Your task to perform on an android device: open wifi settings Image 0: 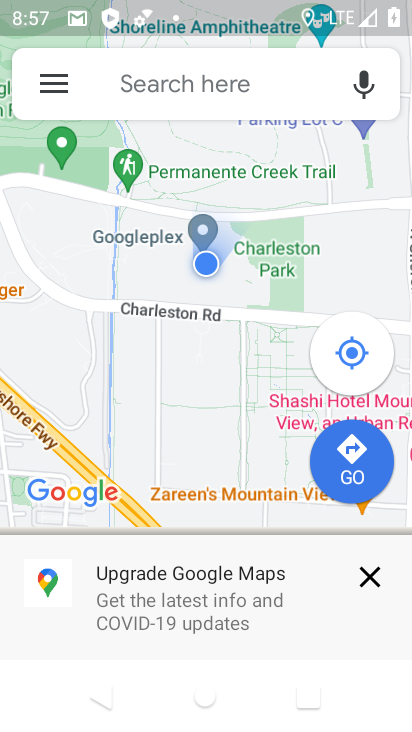
Step 0: press back button
Your task to perform on an android device: open wifi settings Image 1: 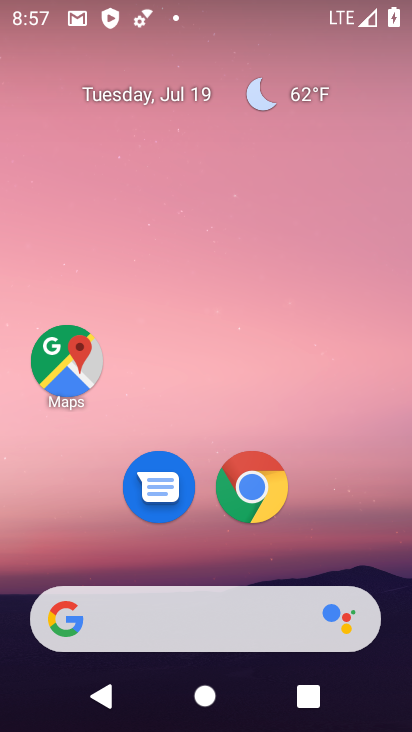
Step 1: drag from (41, 22) to (167, 642)
Your task to perform on an android device: open wifi settings Image 2: 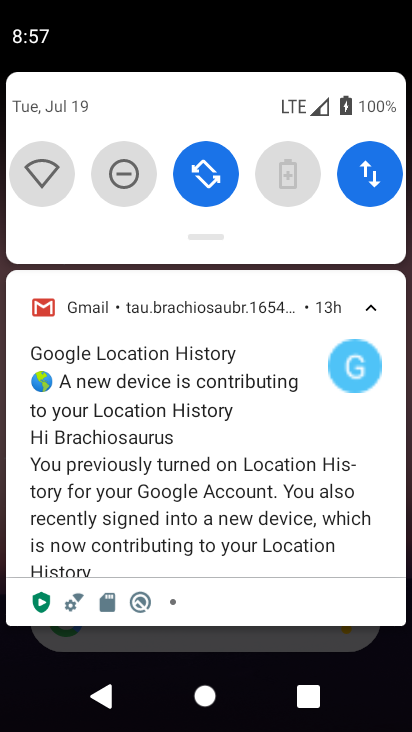
Step 2: click (47, 179)
Your task to perform on an android device: open wifi settings Image 3: 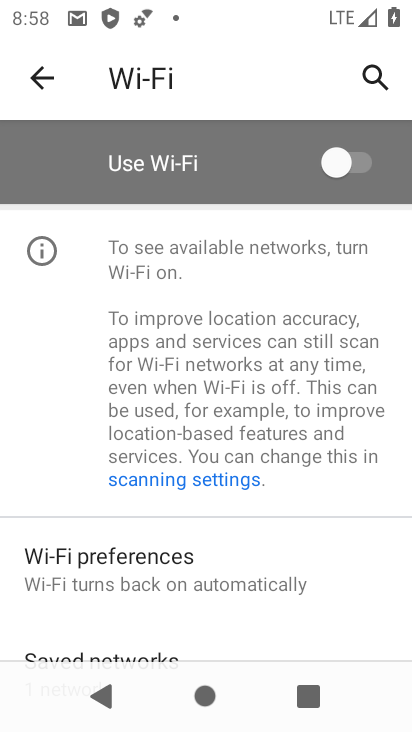
Step 3: task complete